Your task to perform on an android device: Go to Yahoo.com Image 0: 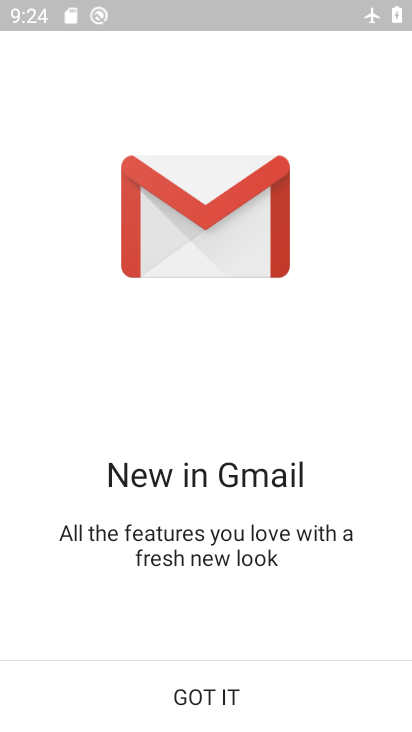
Step 0: press home button
Your task to perform on an android device: Go to Yahoo.com Image 1: 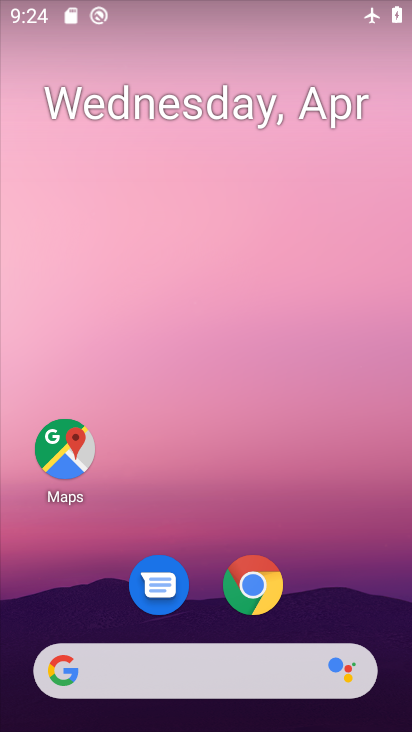
Step 1: click (238, 673)
Your task to perform on an android device: Go to Yahoo.com Image 2: 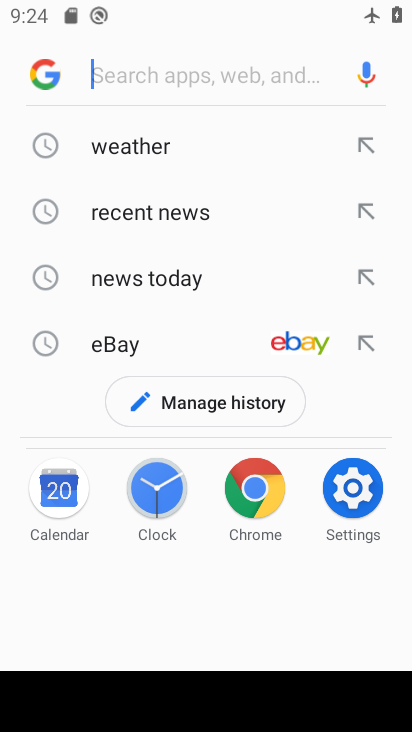
Step 2: type "yahoo.com"
Your task to perform on an android device: Go to Yahoo.com Image 3: 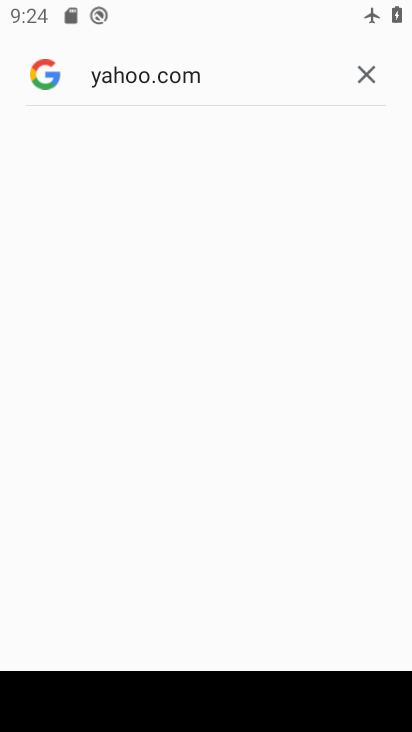
Step 3: task complete